Your task to perform on an android device: allow cookies in the chrome app Image 0: 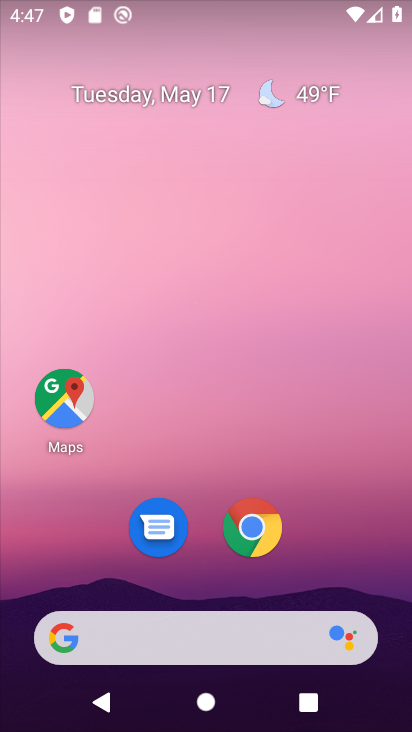
Step 0: drag from (313, 485) to (257, 3)
Your task to perform on an android device: allow cookies in the chrome app Image 1: 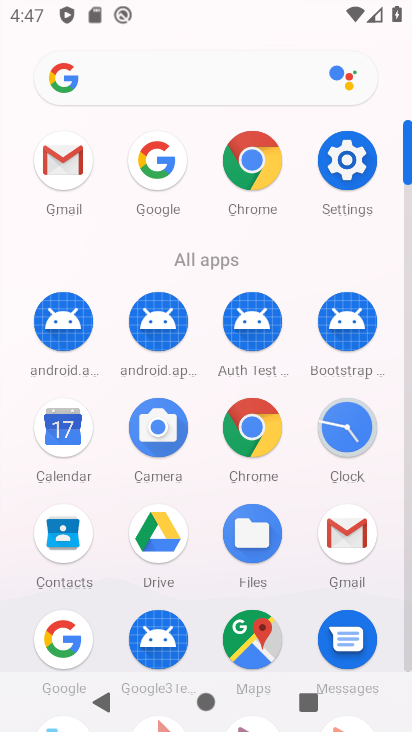
Step 1: drag from (21, 559) to (16, 250)
Your task to perform on an android device: allow cookies in the chrome app Image 2: 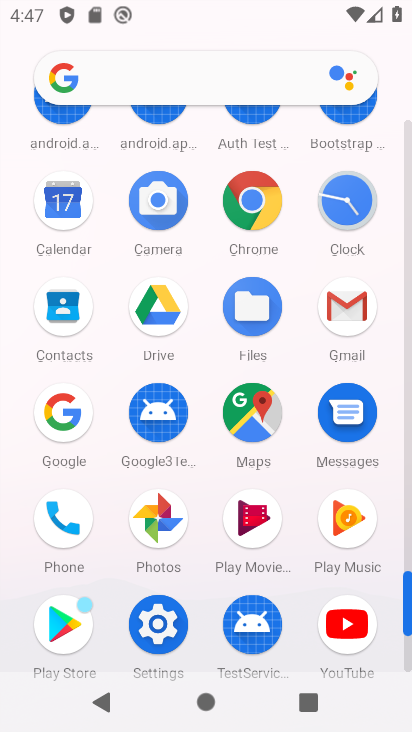
Step 2: click (236, 196)
Your task to perform on an android device: allow cookies in the chrome app Image 3: 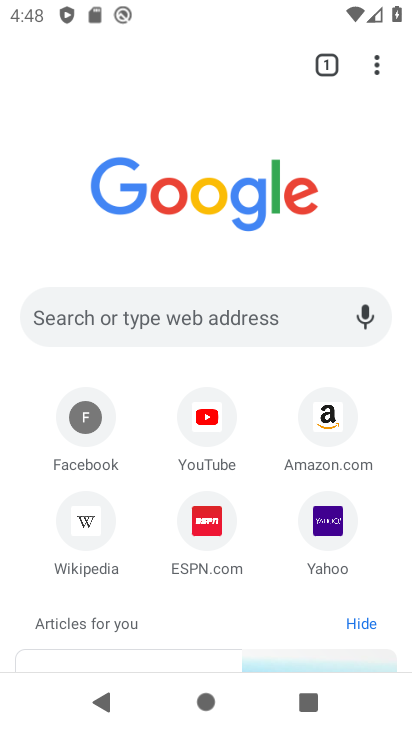
Step 3: drag from (376, 68) to (181, 548)
Your task to perform on an android device: allow cookies in the chrome app Image 4: 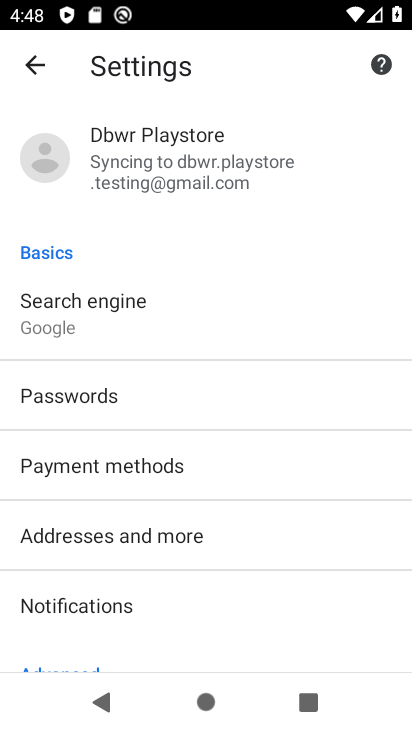
Step 4: drag from (185, 565) to (233, 205)
Your task to perform on an android device: allow cookies in the chrome app Image 5: 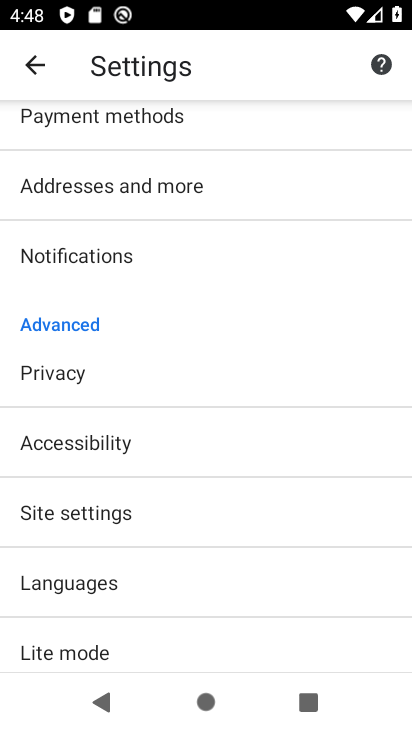
Step 5: drag from (245, 601) to (274, 261)
Your task to perform on an android device: allow cookies in the chrome app Image 6: 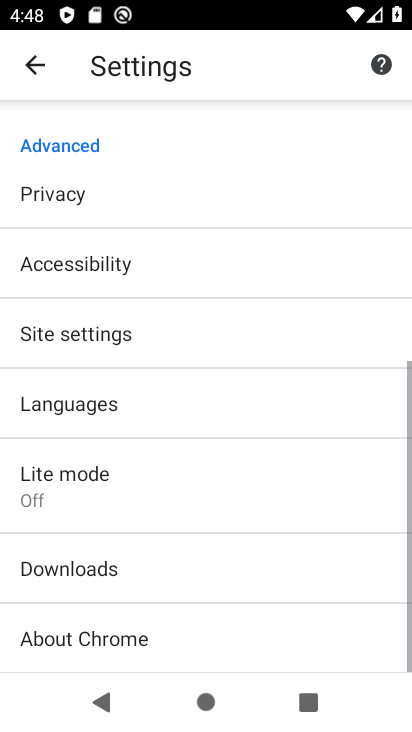
Step 6: drag from (268, 265) to (265, 591)
Your task to perform on an android device: allow cookies in the chrome app Image 7: 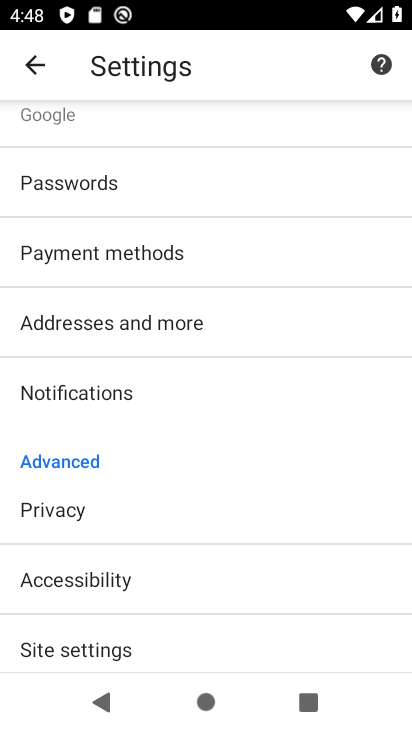
Step 7: drag from (283, 236) to (284, 595)
Your task to perform on an android device: allow cookies in the chrome app Image 8: 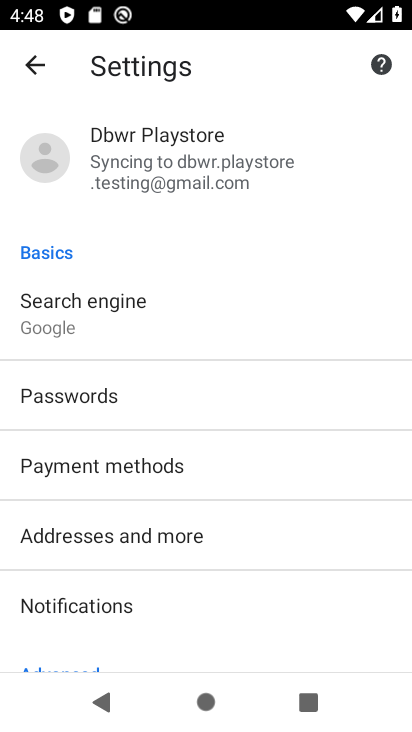
Step 8: drag from (252, 535) to (283, 210)
Your task to perform on an android device: allow cookies in the chrome app Image 9: 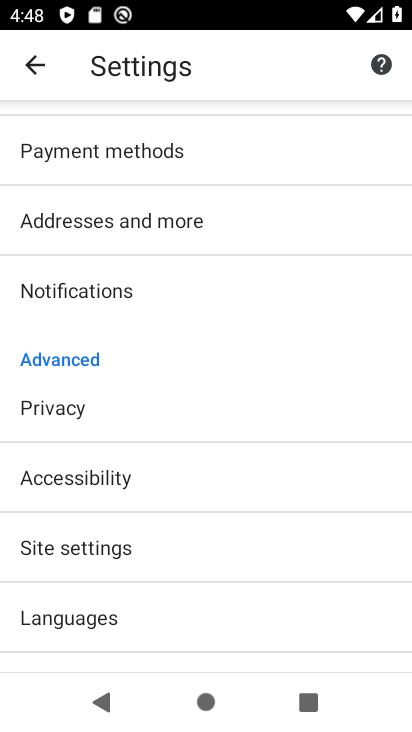
Step 9: drag from (265, 593) to (282, 227)
Your task to perform on an android device: allow cookies in the chrome app Image 10: 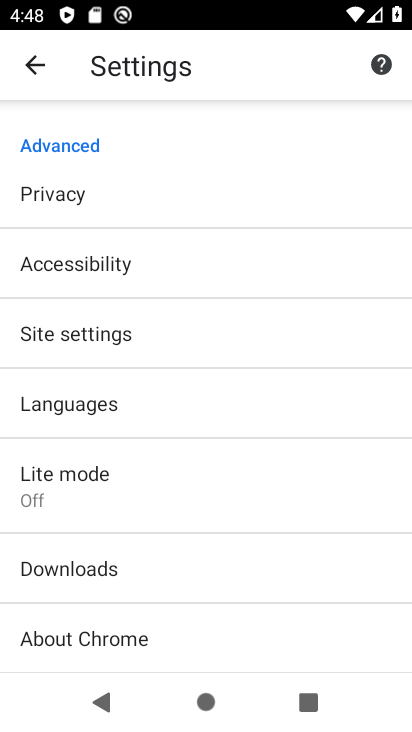
Step 10: click (144, 349)
Your task to perform on an android device: allow cookies in the chrome app Image 11: 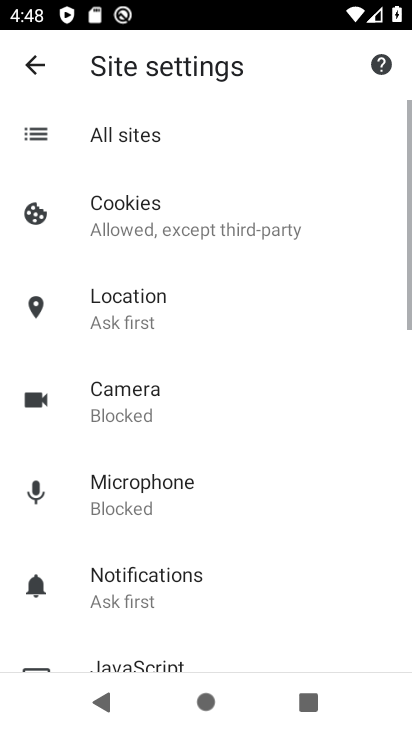
Step 11: click (168, 226)
Your task to perform on an android device: allow cookies in the chrome app Image 12: 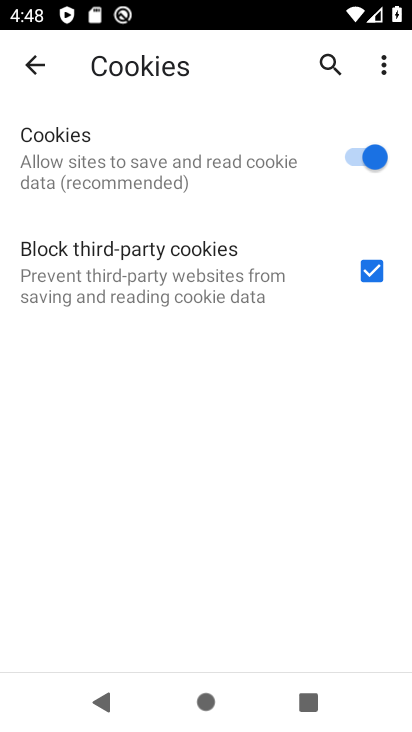
Step 12: task complete